Your task to perform on an android device: change the upload size in google photos Image 0: 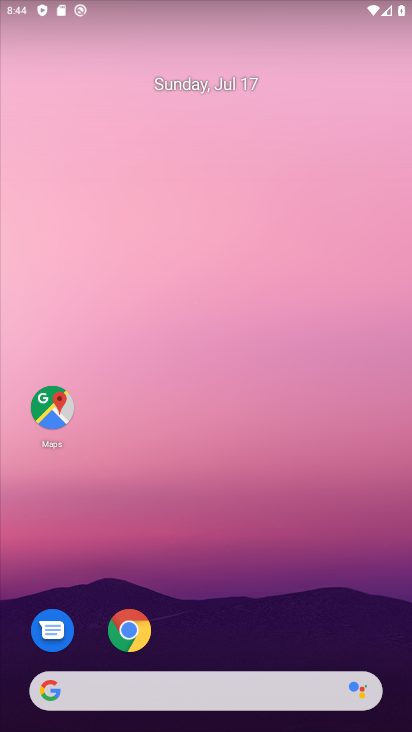
Step 0: drag from (197, 628) to (279, 115)
Your task to perform on an android device: change the upload size in google photos Image 1: 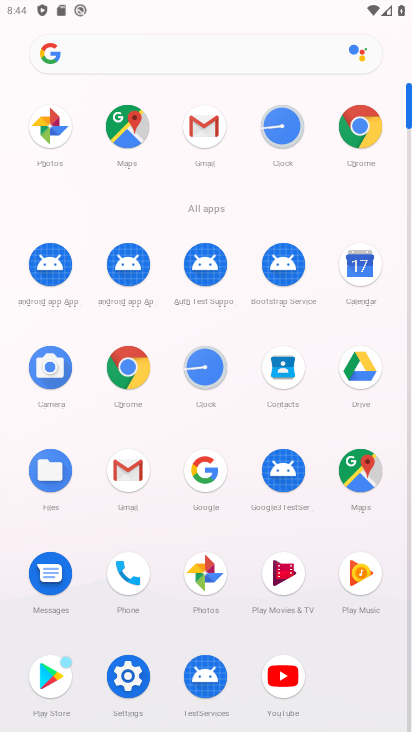
Step 1: click (199, 567)
Your task to perform on an android device: change the upload size in google photos Image 2: 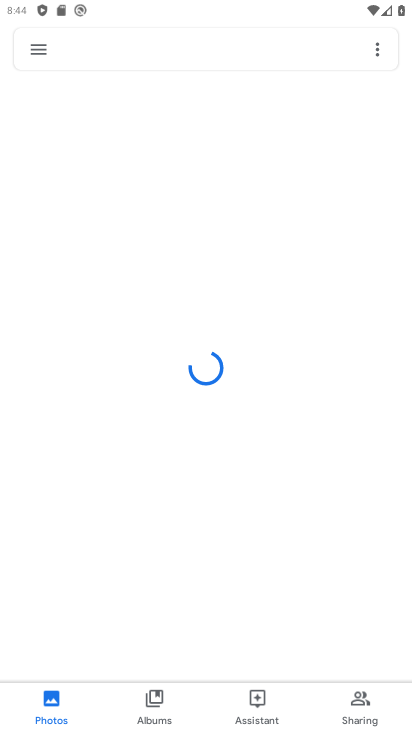
Step 2: click (43, 60)
Your task to perform on an android device: change the upload size in google photos Image 3: 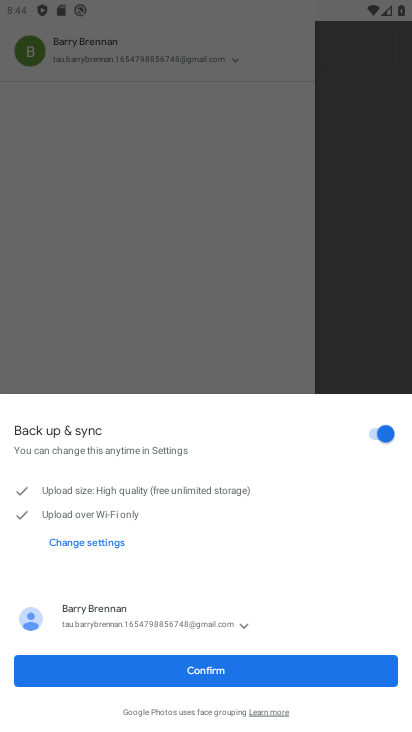
Step 3: click (207, 680)
Your task to perform on an android device: change the upload size in google photos Image 4: 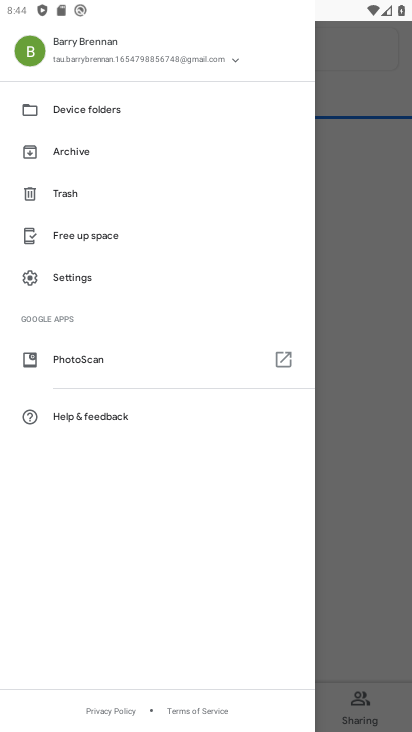
Step 4: click (124, 278)
Your task to perform on an android device: change the upload size in google photos Image 5: 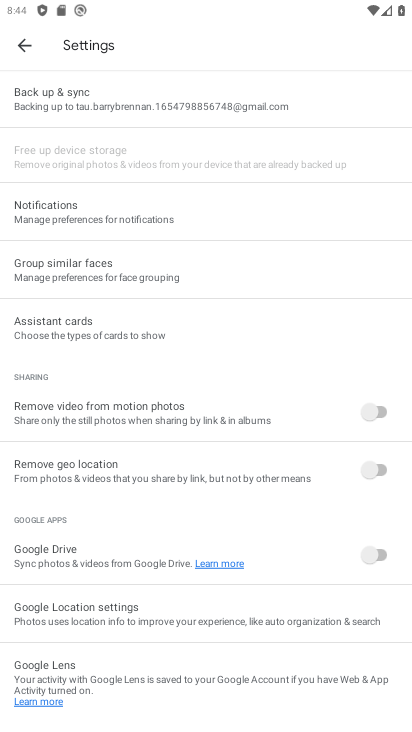
Step 5: click (130, 110)
Your task to perform on an android device: change the upload size in google photos Image 6: 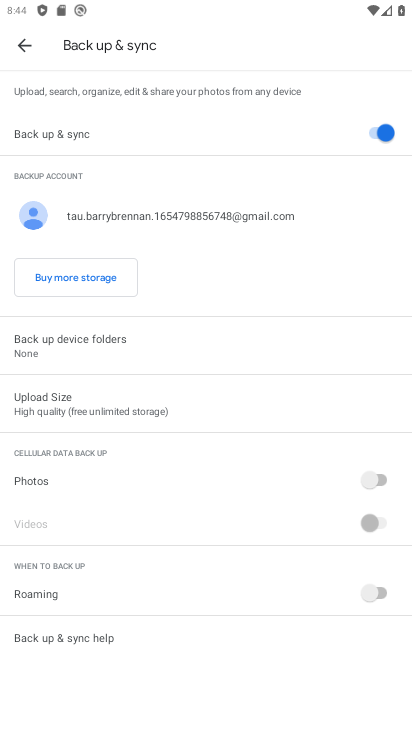
Step 6: click (157, 404)
Your task to perform on an android device: change the upload size in google photos Image 7: 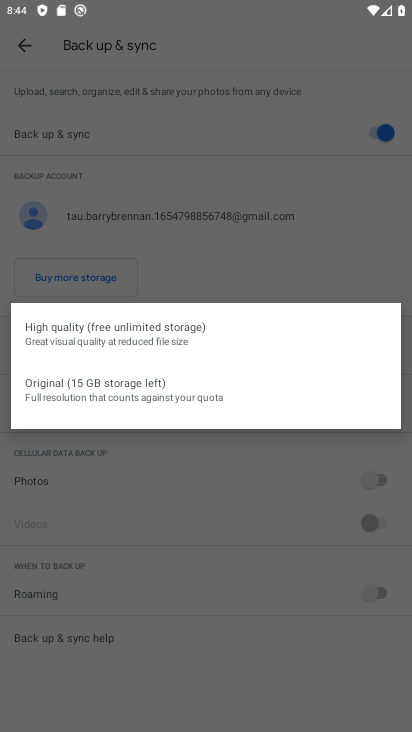
Step 7: click (149, 378)
Your task to perform on an android device: change the upload size in google photos Image 8: 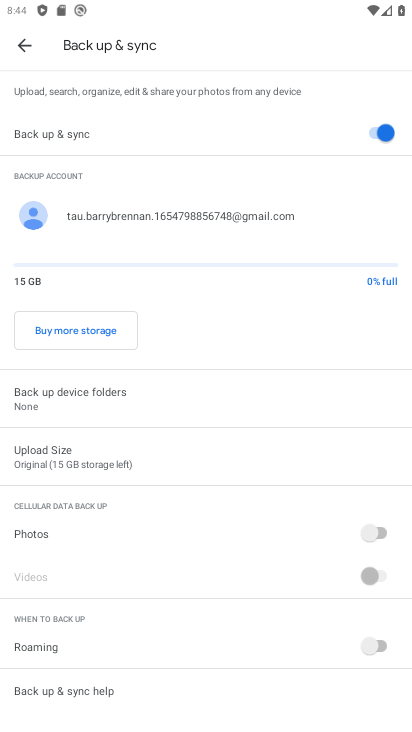
Step 8: task complete